Your task to perform on an android device: Open my contact list Image 0: 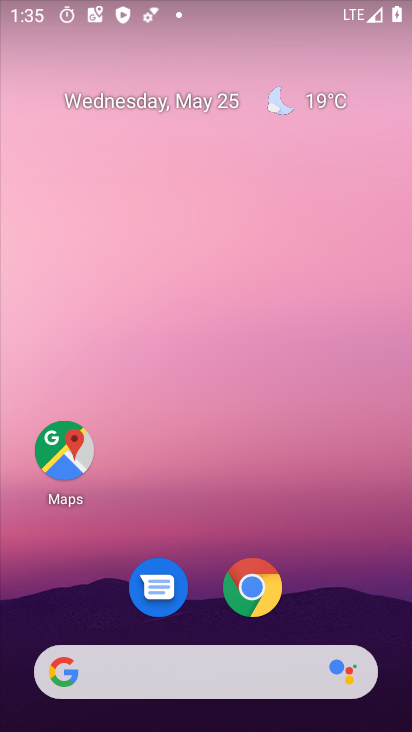
Step 0: drag from (217, 719) to (210, 70)
Your task to perform on an android device: Open my contact list Image 1: 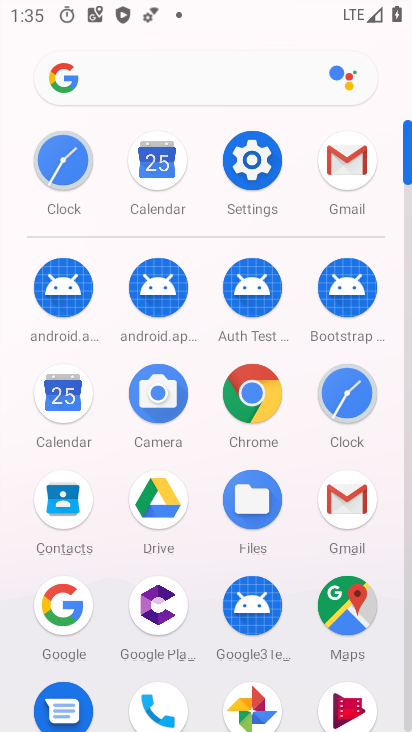
Step 1: click (69, 502)
Your task to perform on an android device: Open my contact list Image 2: 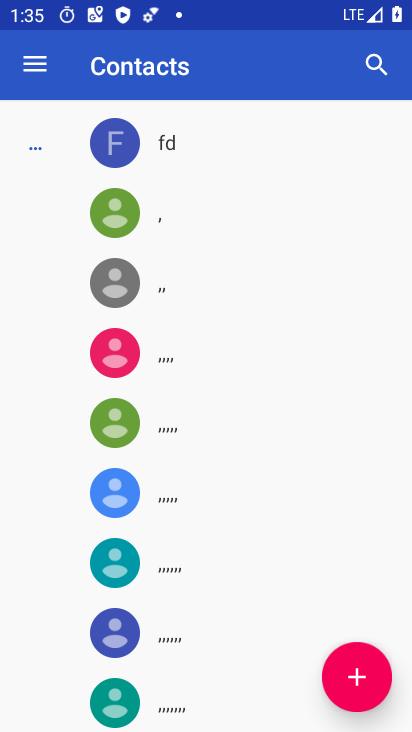
Step 2: task complete